Your task to perform on an android device: clear history in the chrome app Image 0: 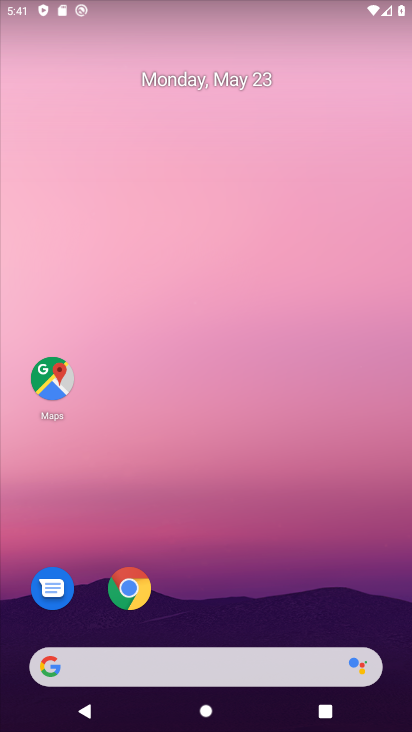
Step 0: drag from (298, 532) to (266, 2)
Your task to perform on an android device: clear history in the chrome app Image 1: 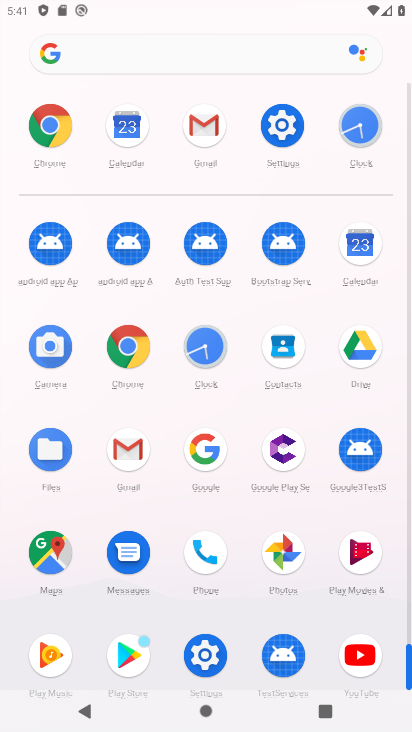
Step 1: drag from (8, 591) to (18, 230)
Your task to perform on an android device: clear history in the chrome app Image 2: 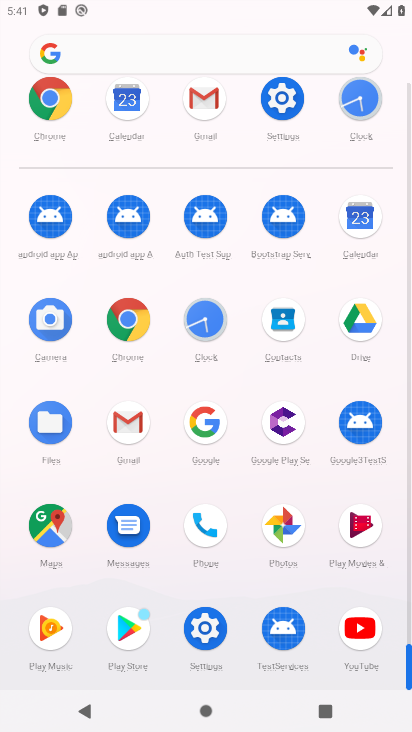
Step 2: click (128, 313)
Your task to perform on an android device: clear history in the chrome app Image 3: 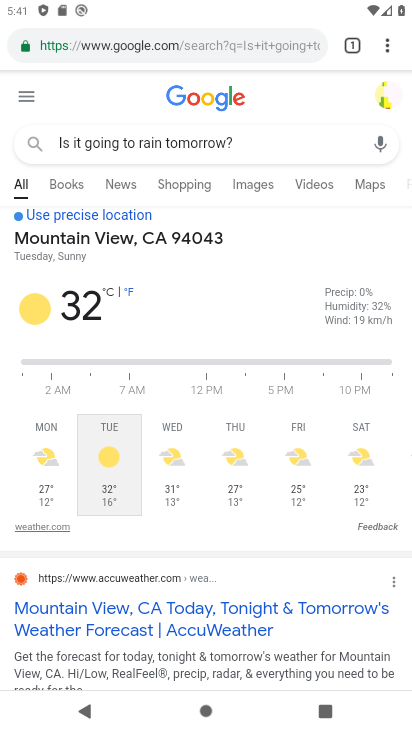
Step 3: click (394, 40)
Your task to perform on an android device: clear history in the chrome app Image 4: 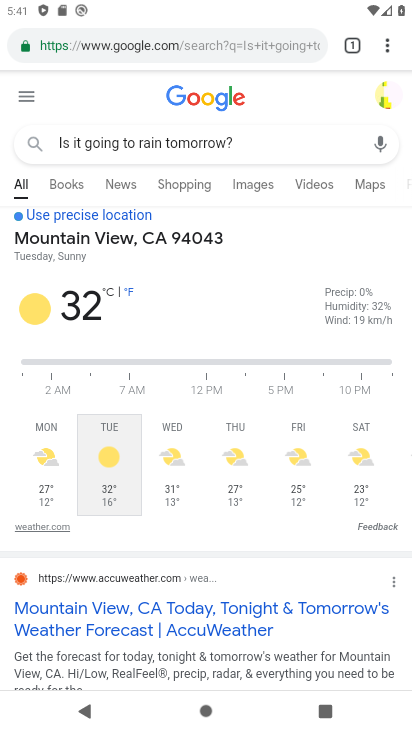
Step 4: drag from (394, 40) to (216, 254)
Your task to perform on an android device: clear history in the chrome app Image 5: 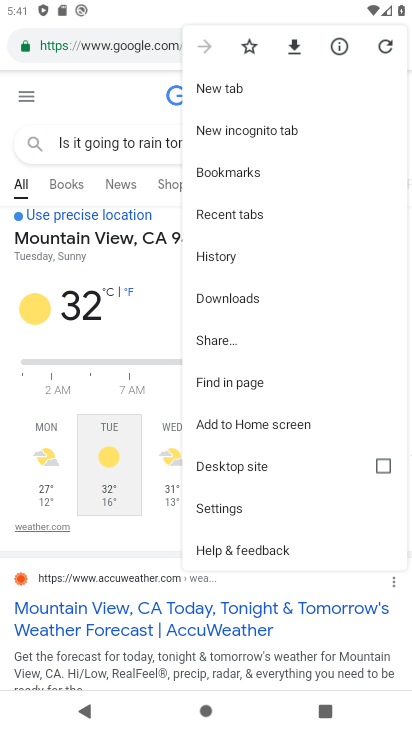
Step 5: click (223, 253)
Your task to perform on an android device: clear history in the chrome app Image 6: 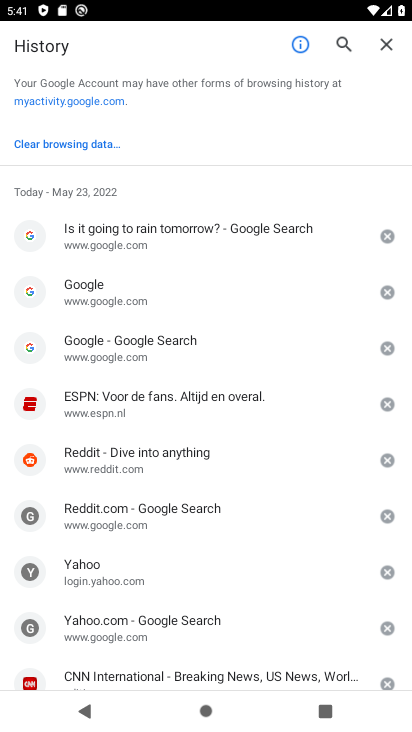
Step 6: click (62, 144)
Your task to perform on an android device: clear history in the chrome app Image 7: 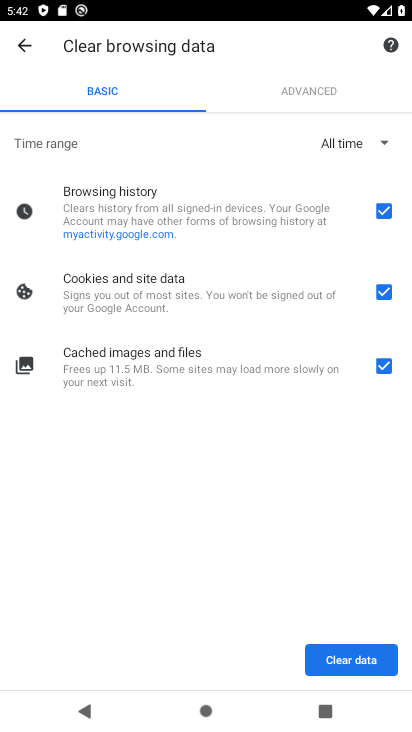
Step 7: click (376, 661)
Your task to perform on an android device: clear history in the chrome app Image 8: 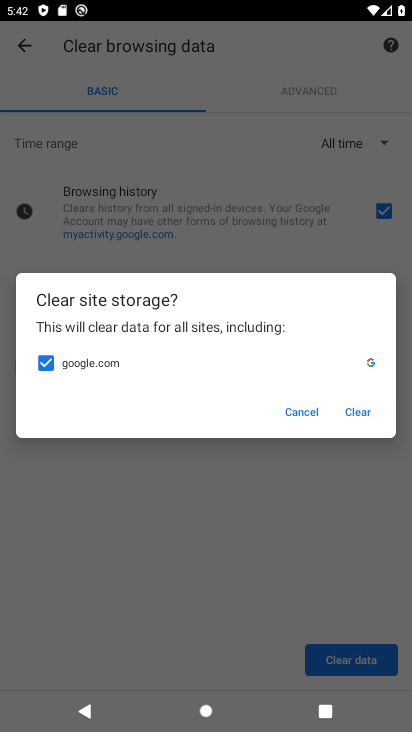
Step 8: click (344, 413)
Your task to perform on an android device: clear history in the chrome app Image 9: 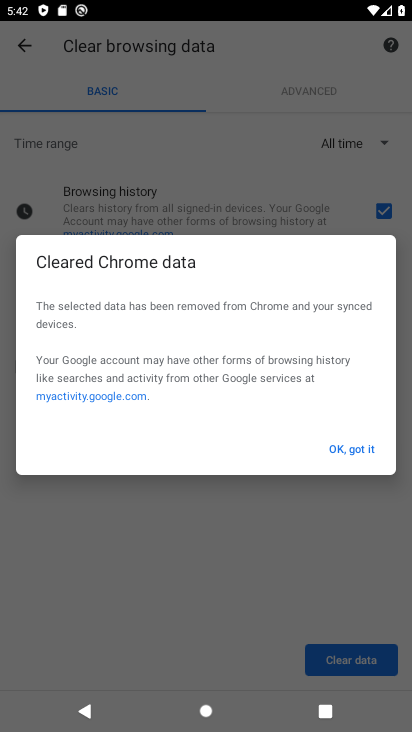
Step 9: click (358, 454)
Your task to perform on an android device: clear history in the chrome app Image 10: 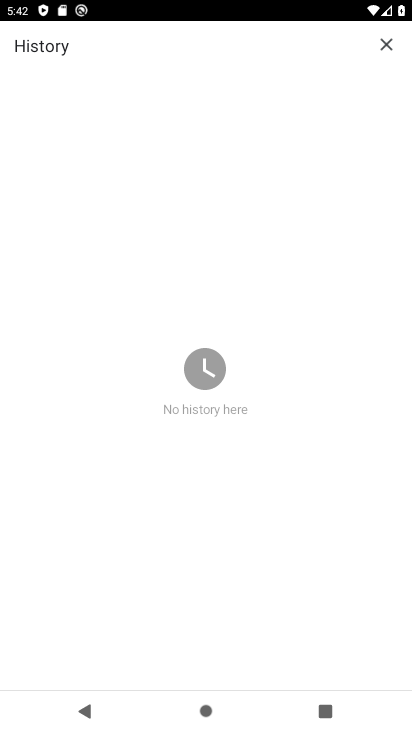
Step 10: task complete